Your task to perform on an android device: open chrome and create a bookmark for the current page Image 0: 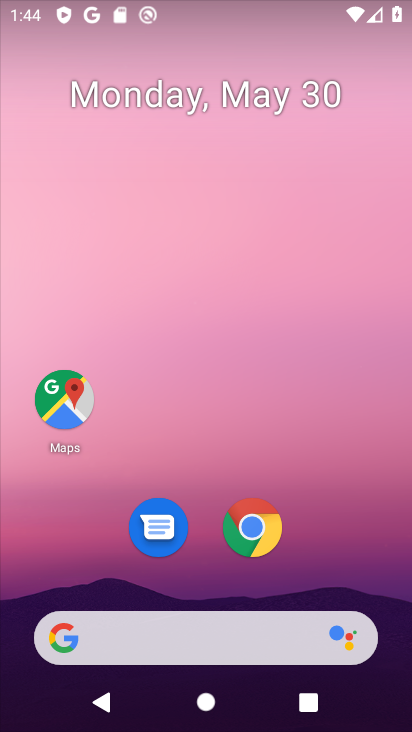
Step 0: press home button
Your task to perform on an android device: open chrome and create a bookmark for the current page Image 1: 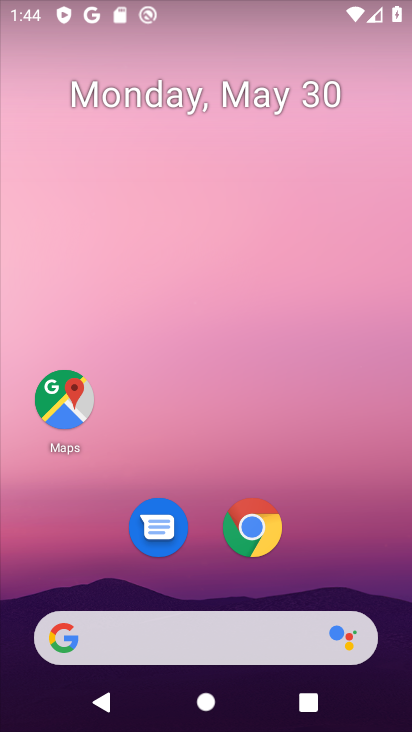
Step 1: click (252, 518)
Your task to perform on an android device: open chrome and create a bookmark for the current page Image 2: 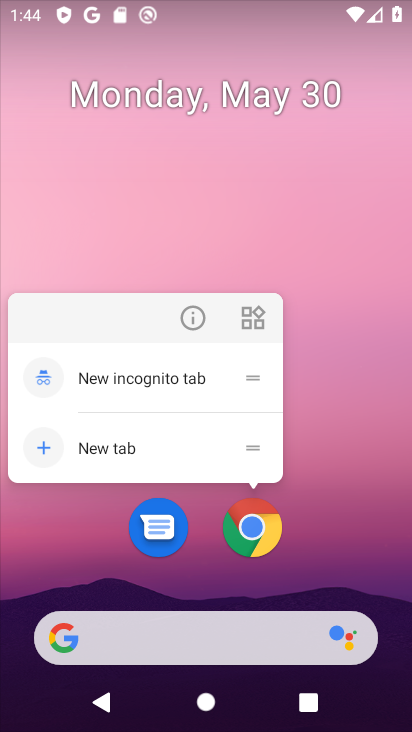
Step 2: click (242, 530)
Your task to perform on an android device: open chrome and create a bookmark for the current page Image 3: 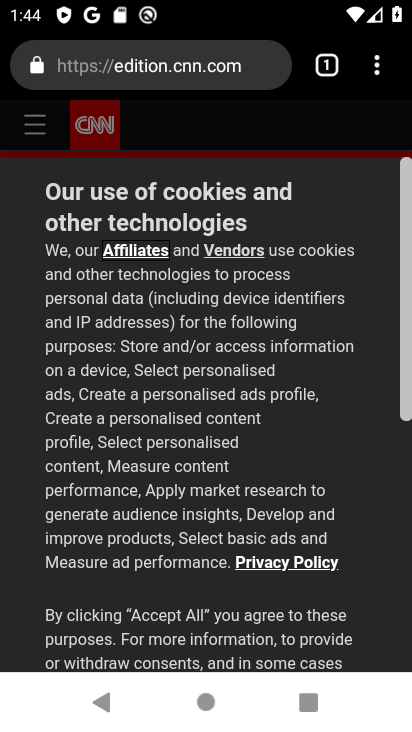
Step 3: click (376, 63)
Your task to perform on an android device: open chrome and create a bookmark for the current page Image 4: 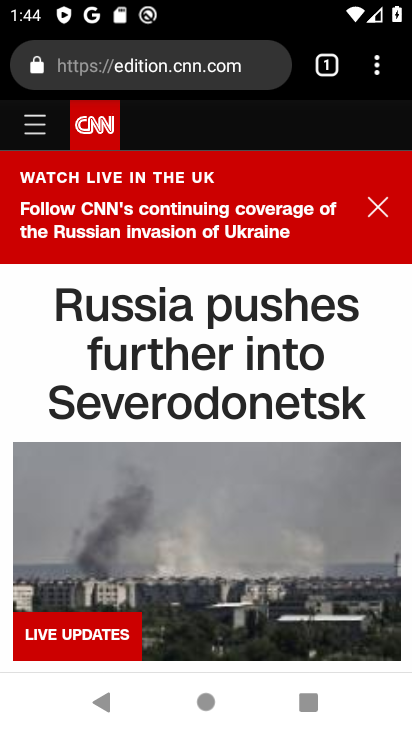
Step 4: click (381, 60)
Your task to perform on an android device: open chrome and create a bookmark for the current page Image 5: 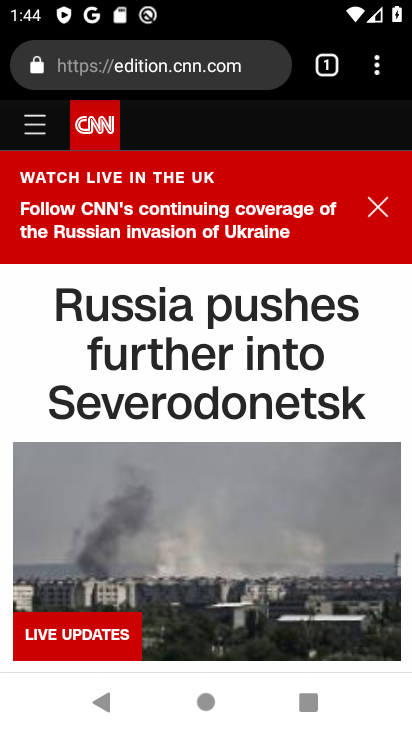
Step 5: click (400, 67)
Your task to perform on an android device: open chrome and create a bookmark for the current page Image 6: 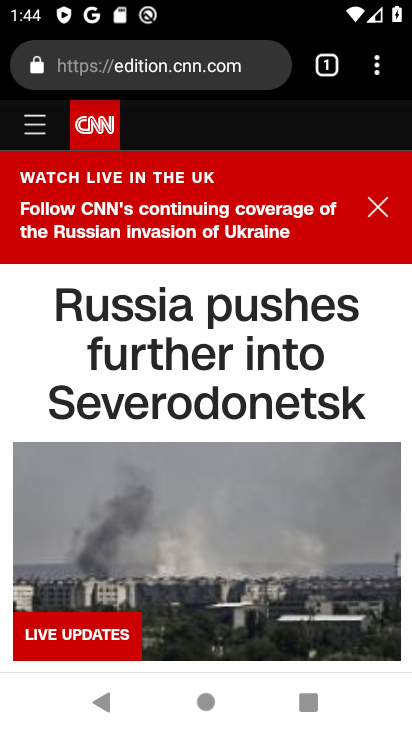
Step 6: click (380, 73)
Your task to perform on an android device: open chrome and create a bookmark for the current page Image 7: 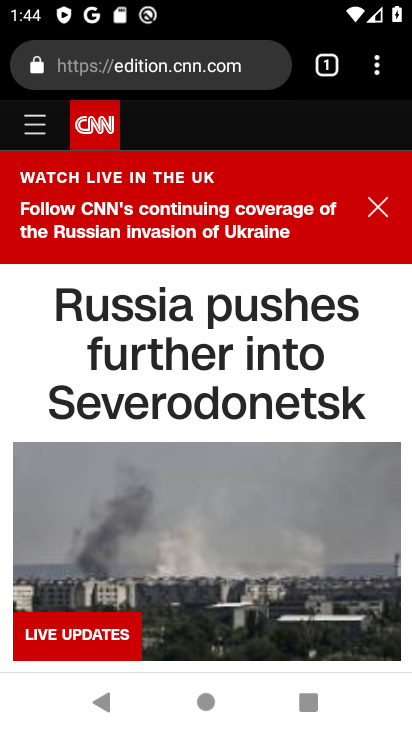
Step 7: click (373, 77)
Your task to perform on an android device: open chrome and create a bookmark for the current page Image 8: 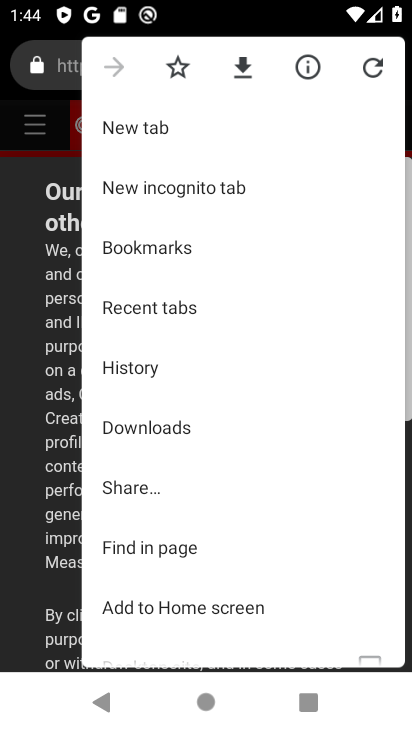
Step 8: click (184, 72)
Your task to perform on an android device: open chrome and create a bookmark for the current page Image 9: 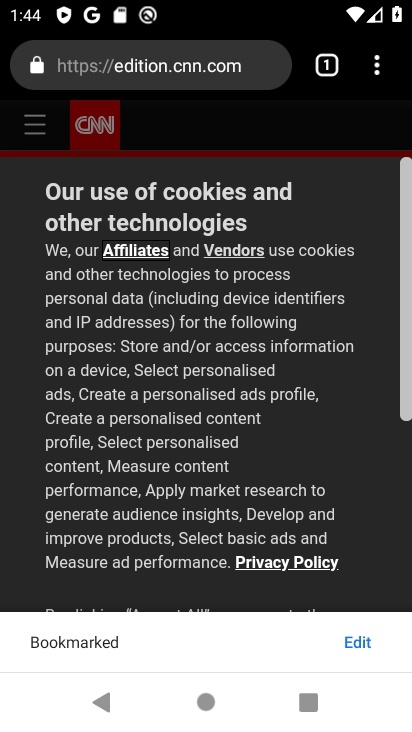
Step 9: task complete